Your task to perform on an android device: Go to notification settings Image 0: 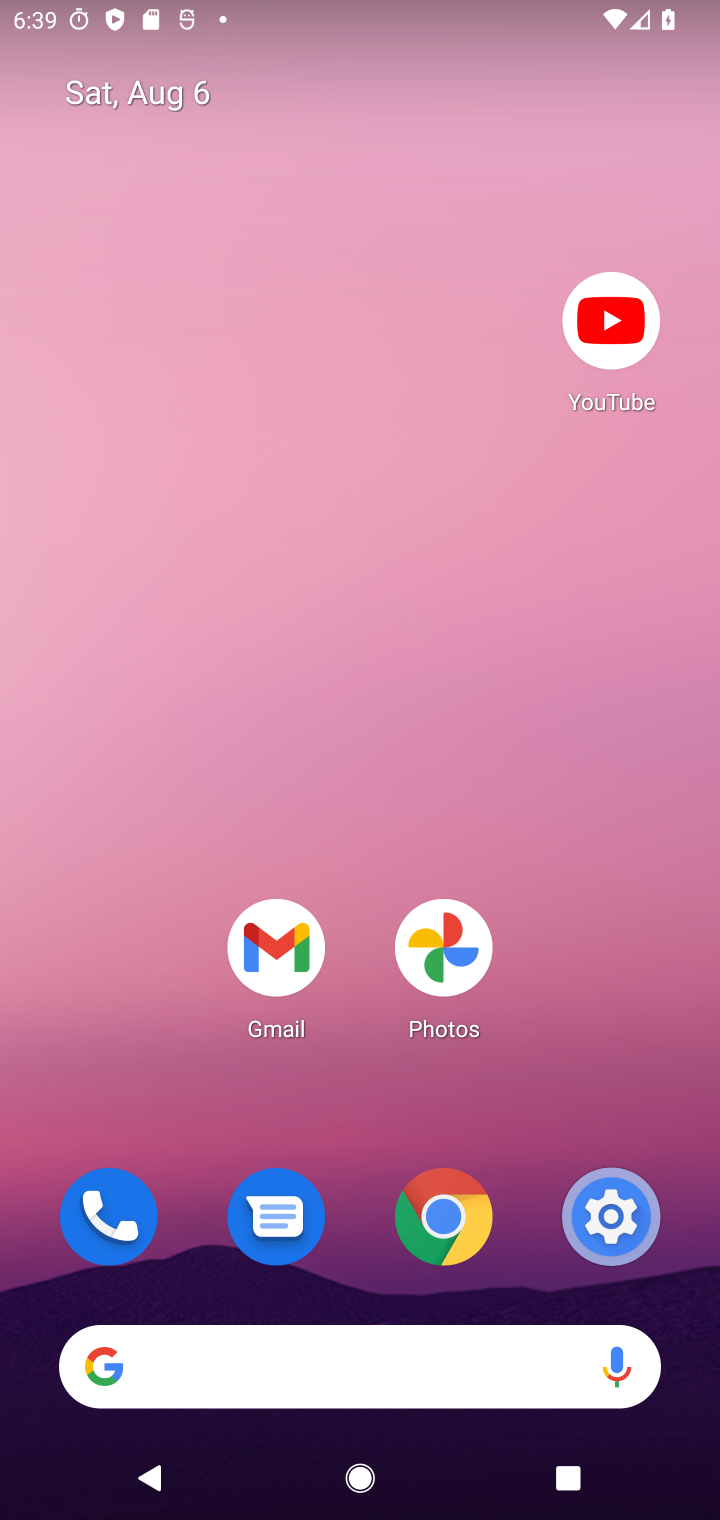
Step 0: drag from (571, 1049) to (539, 37)
Your task to perform on an android device: Go to notification settings Image 1: 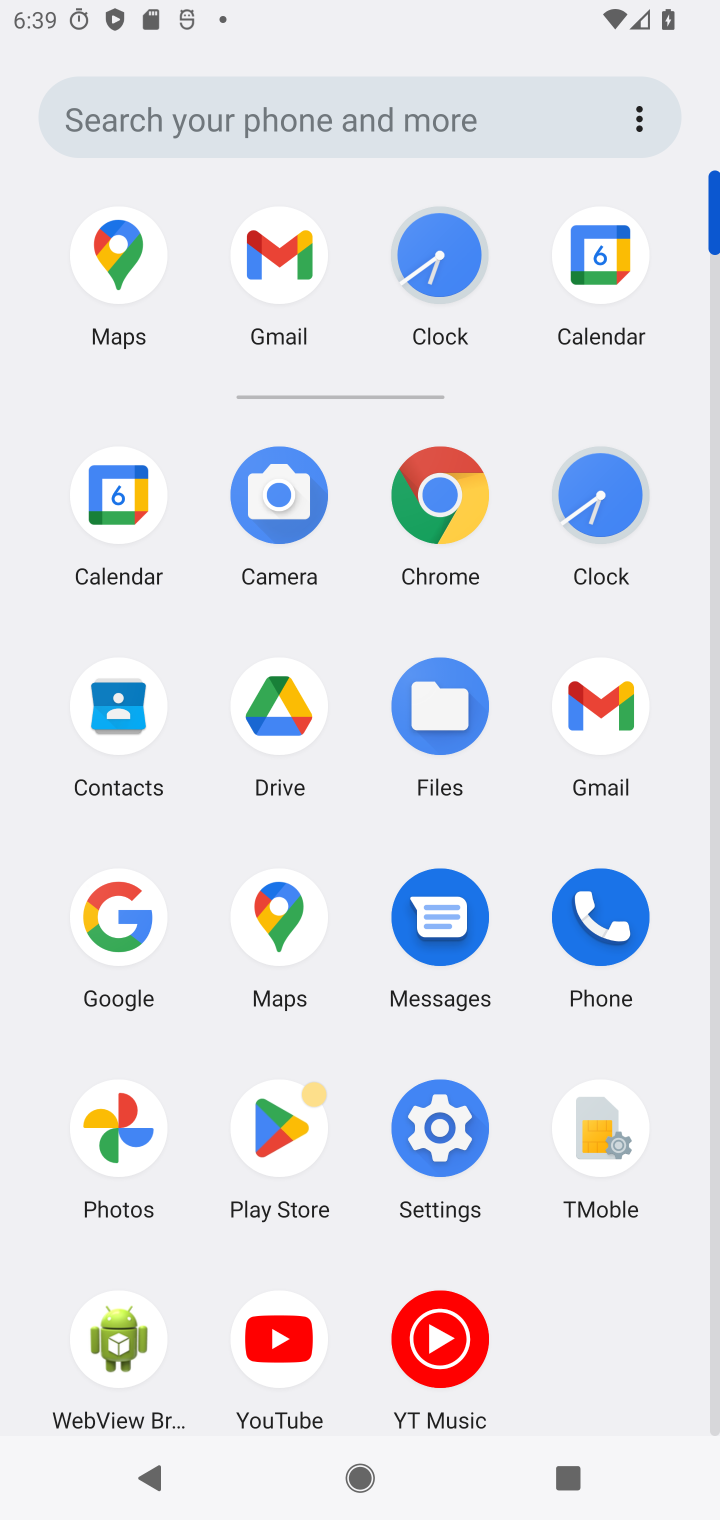
Step 1: click (443, 1112)
Your task to perform on an android device: Go to notification settings Image 2: 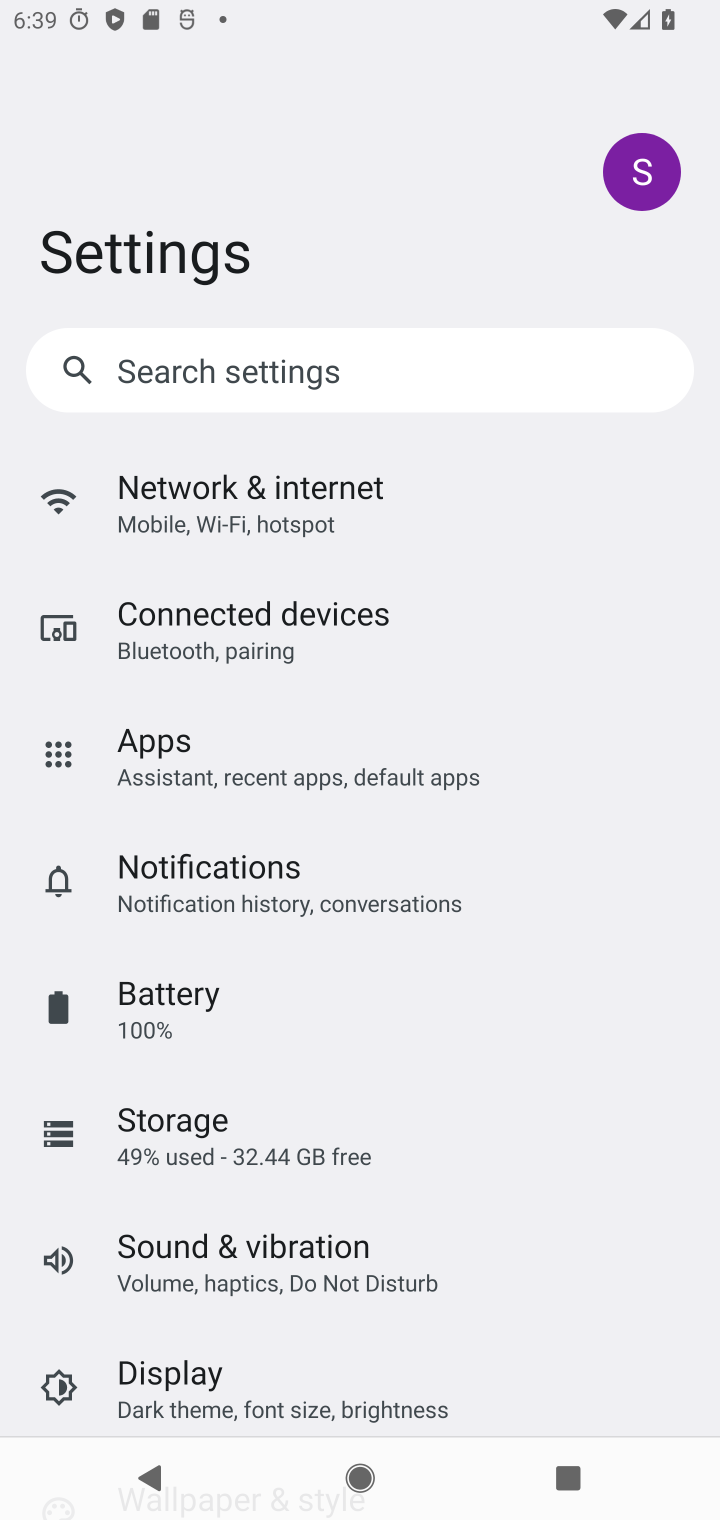
Step 2: click (318, 888)
Your task to perform on an android device: Go to notification settings Image 3: 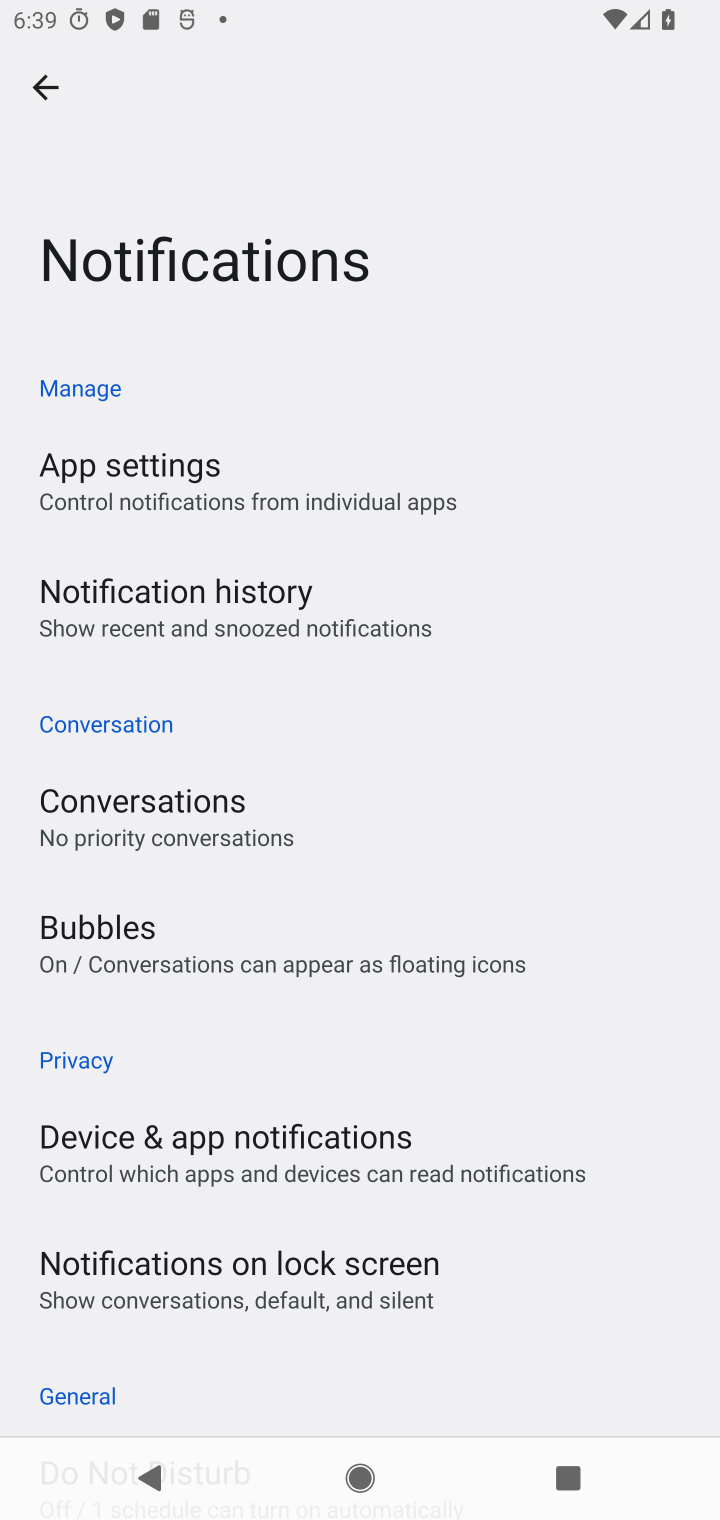
Step 3: task complete